Your task to perform on an android device: Go to privacy settings Image 0: 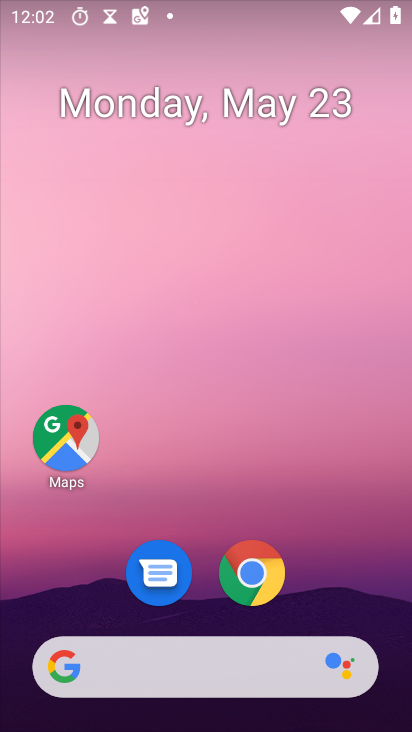
Step 0: press home button
Your task to perform on an android device: Go to privacy settings Image 1: 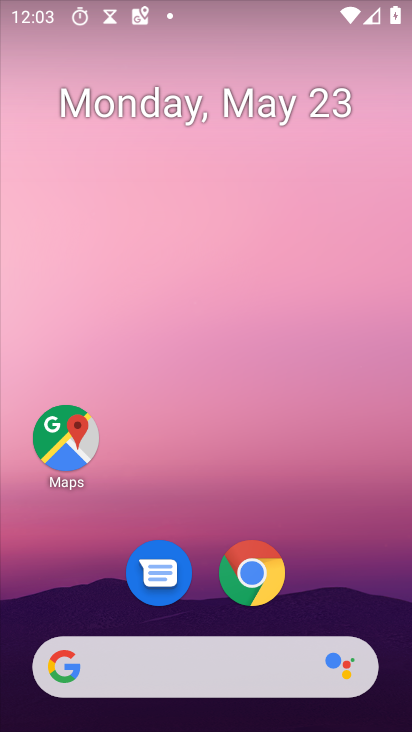
Step 1: drag from (186, 650) to (378, 8)
Your task to perform on an android device: Go to privacy settings Image 2: 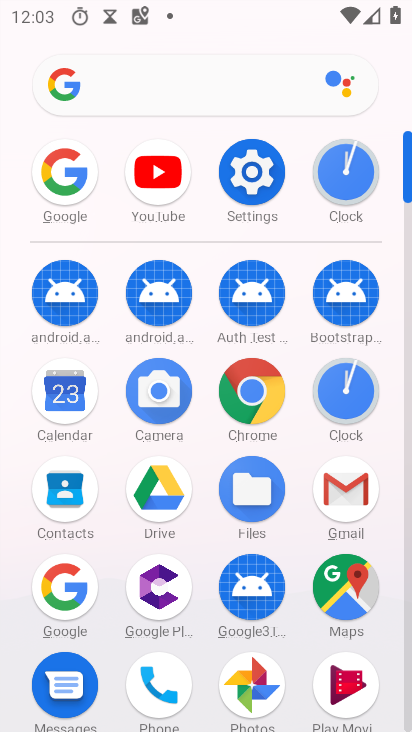
Step 2: click (248, 175)
Your task to perform on an android device: Go to privacy settings Image 3: 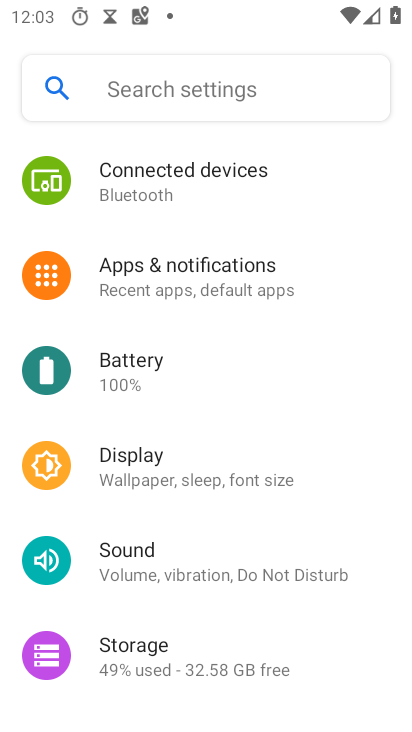
Step 3: drag from (253, 545) to (313, 321)
Your task to perform on an android device: Go to privacy settings Image 4: 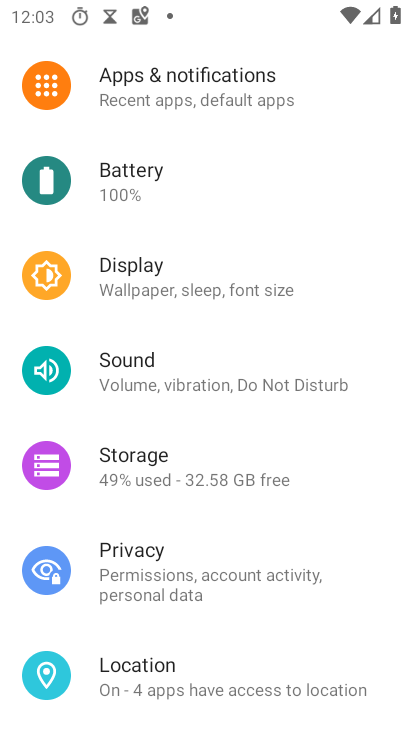
Step 4: click (151, 559)
Your task to perform on an android device: Go to privacy settings Image 5: 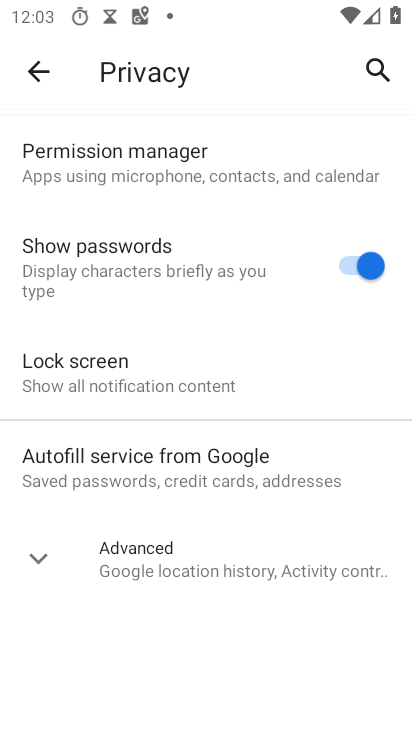
Step 5: task complete